Your task to perform on an android device: set the stopwatch Image 0: 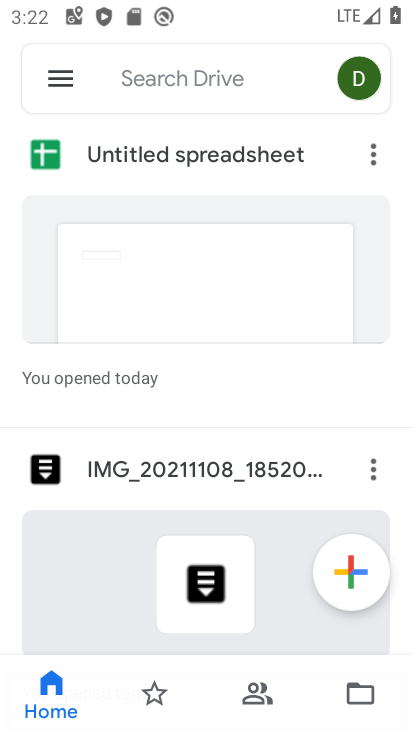
Step 0: press home button
Your task to perform on an android device: set the stopwatch Image 1: 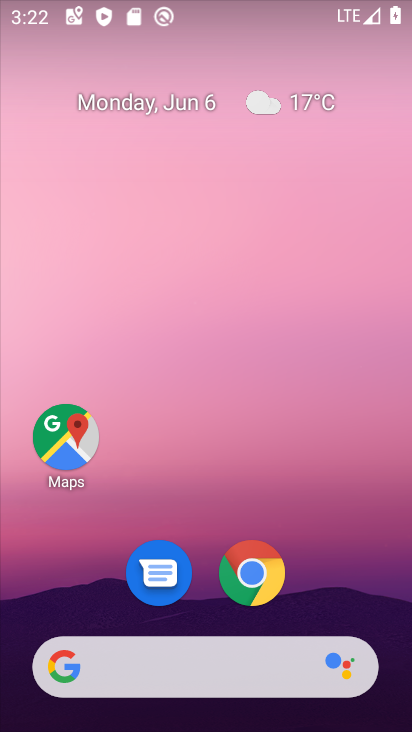
Step 1: drag from (380, 529) to (383, 199)
Your task to perform on an android device: set the stopwatch Image 2: 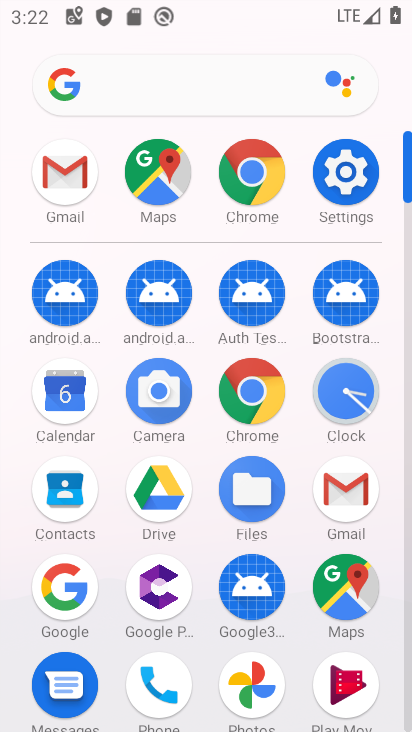
Step 2: click (368, 394)
Your task to perform on an android device: set the stopwatch Image 3: 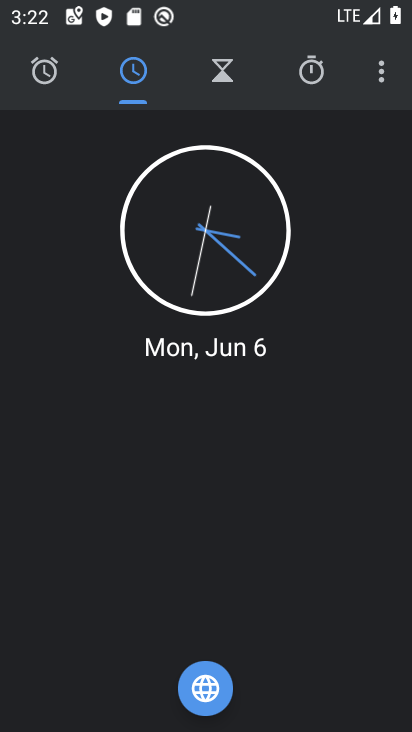
Step 3: click (307, 85)
Your task to perform on an android device: set the stopwatch Image 4: 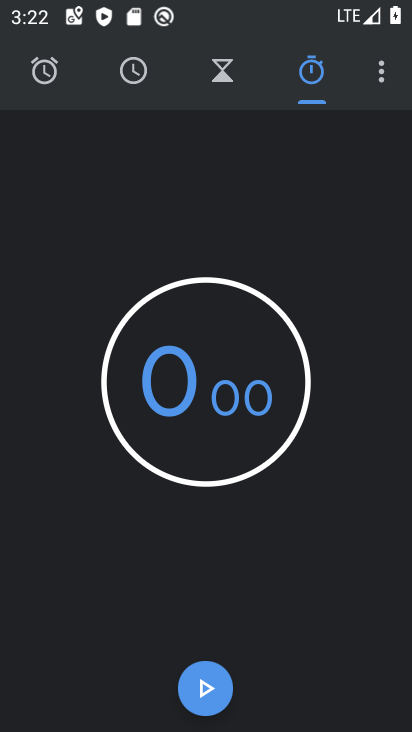
Step 4: click (225, 678)
Your task to perform on an android device: set the stopwatch Image 5: 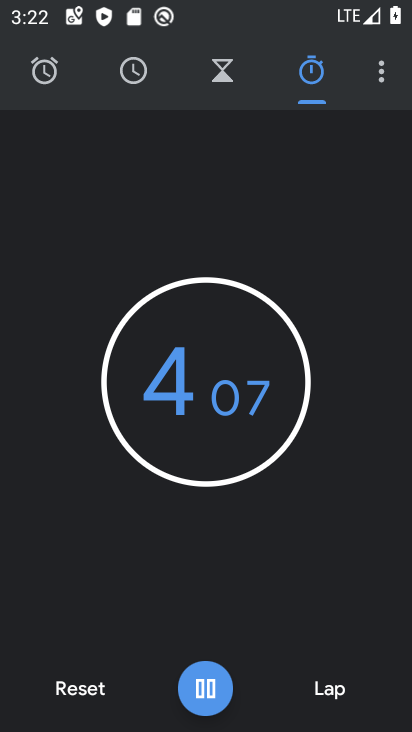
Step 5: task complete